Your task to perform on an android device: Go to Google maps Image 0: 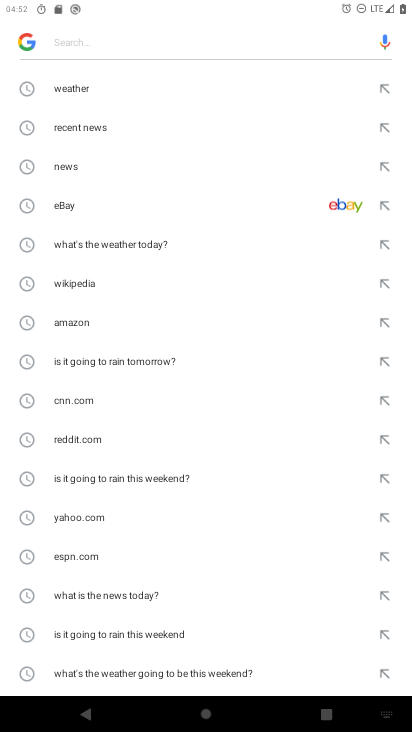
Step 0: press home button
Your task to perform on an android device: Go to Google maps Image 1: 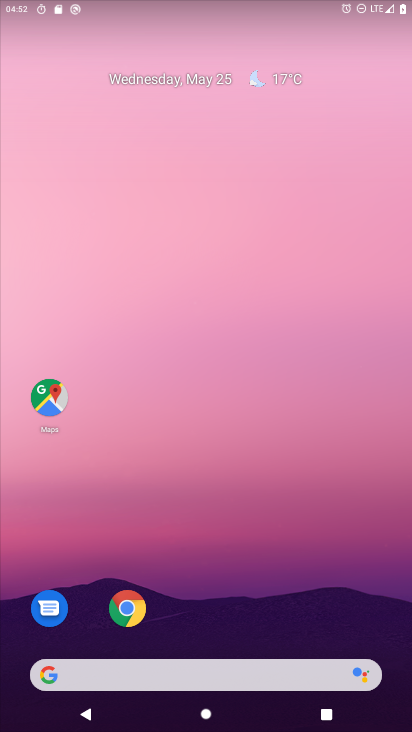
Step 1: click (43, 402)
Your task to perform on an android device: Go to Google maps Image 2: 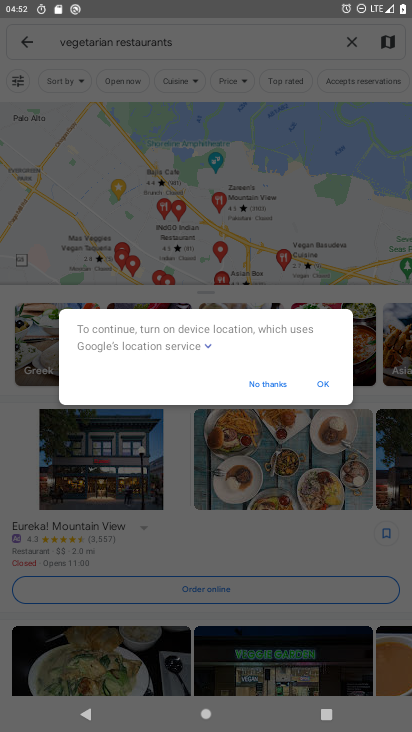
Step 2: task complete